Your task to perform on an android device: Search for vegetarian restaurants on Maps Image 0: 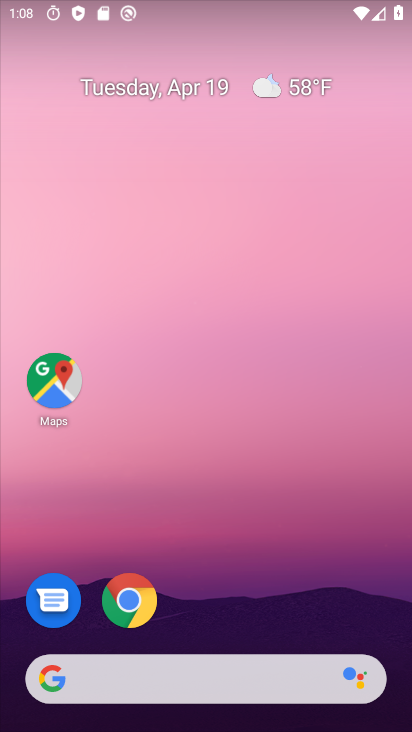
Step 0: drag from (229, 711) to (399, 167)
Your task to perform on an android device: Search for vegetarian restaurants on Maps Image 1: 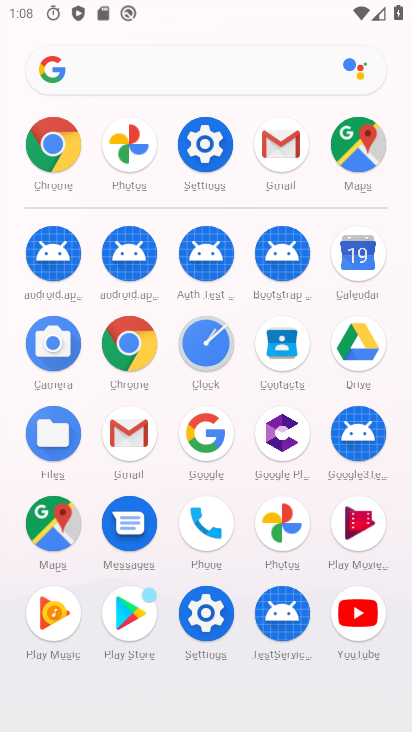
Step 1: click (371, 165)
Your task to perform on an android device: Search for vegetarian restaurants on Maps Image 2: 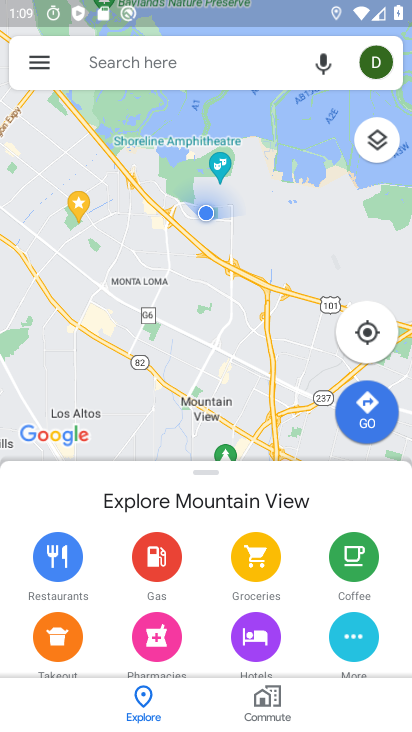
Step 2: click (210, 62)
Your task to perform on an android device: Search for vegetarian restaurants on Maps Image 3: 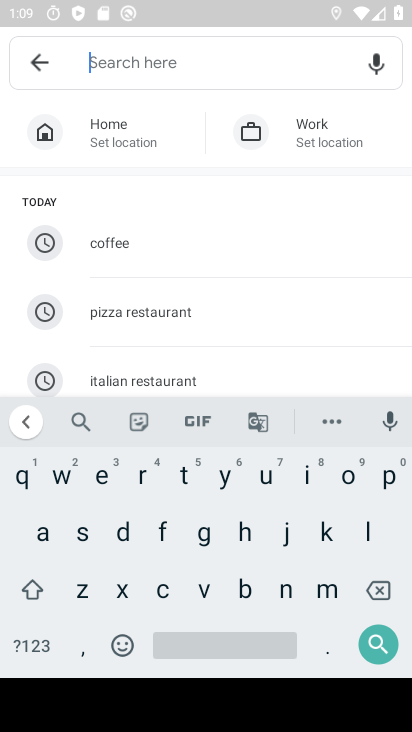
Step 3: click (202, 601)
Your task to perform on an android device: Search for vegetarian restaurants on Maps Image 4: 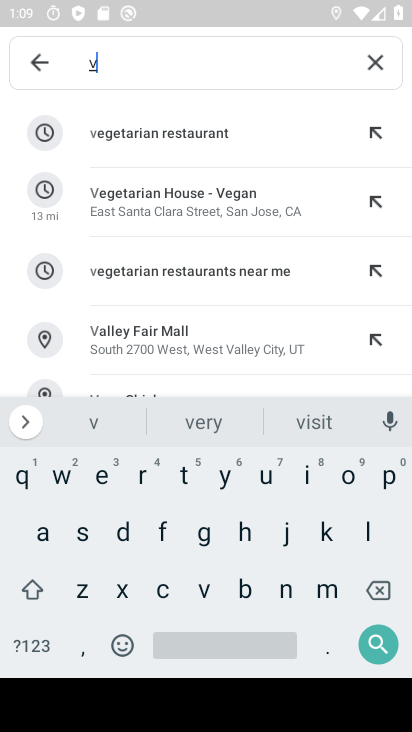
Step 4: click (217, 148)
Your task to perform on an android device: Search for vegetarian restaurants on Maps Image 5: 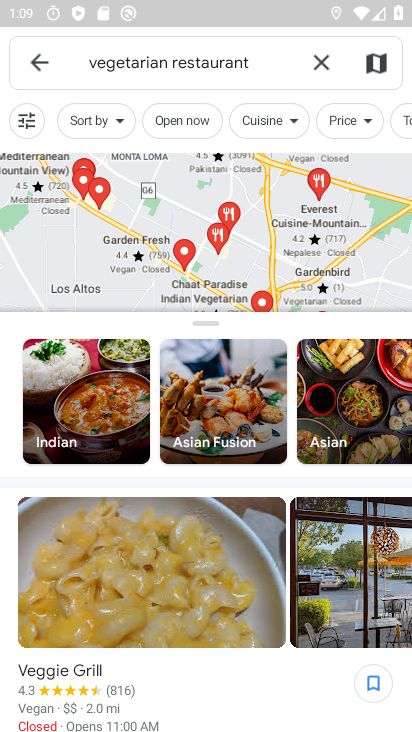
Step 5: click (209, 197)
Your task to perform on an android device: Search for vegetarian restaurants on Maps Image 6: 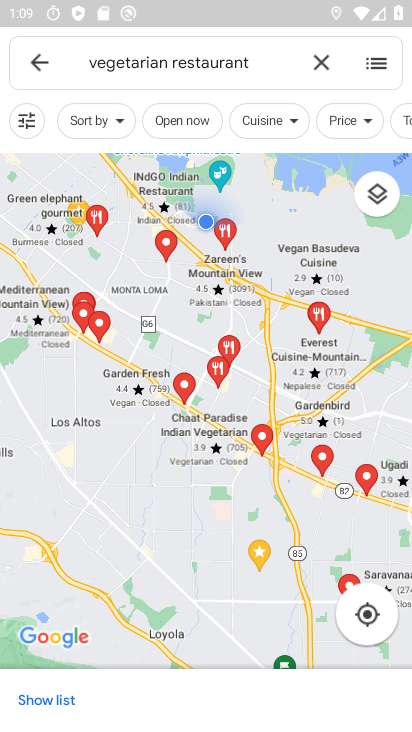
Step 6: task complete